Your task to perform on an android device: What is the news today? Image 0: 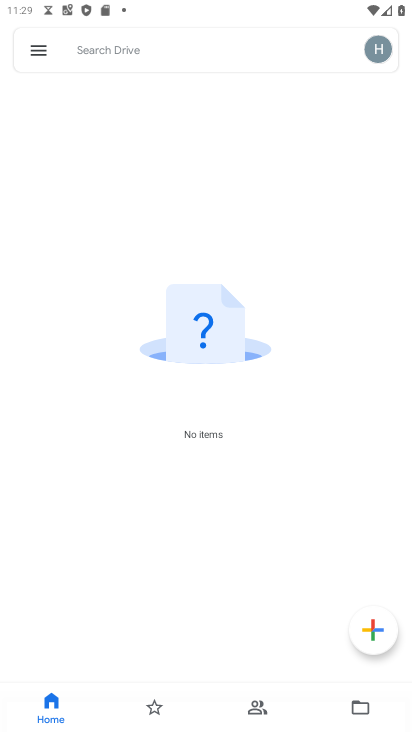
Step 0: press home button
Your task to perform on an android device: What is the news today? Image 1: 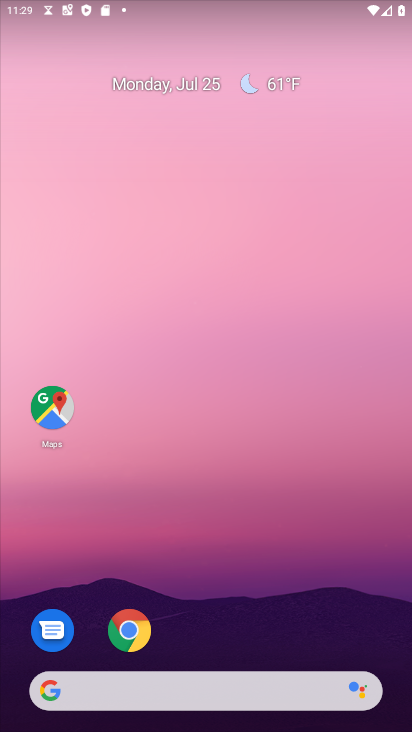
Step 1: click (231, 677)
Your task to perform on an android device: What is the news today? Image 2: 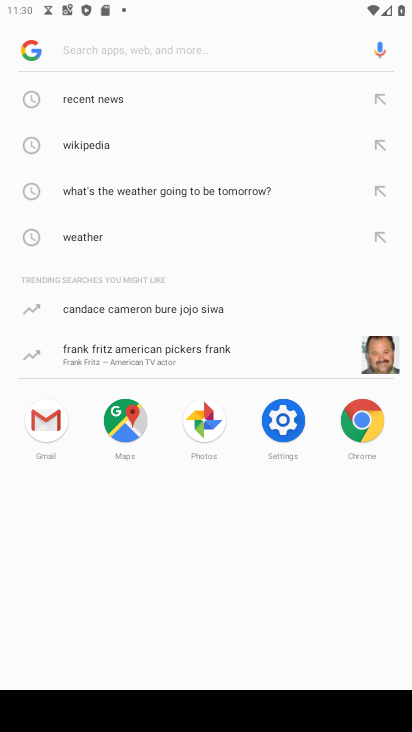
Step 2: type "what is the news today"
Your task to perform on an android device: What is the news today? Image 3: 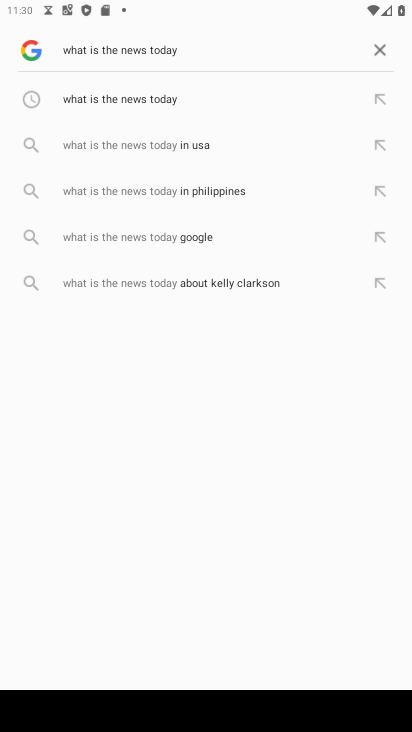
Step 3: click (158, 102)
Your task to perform on an android device: What is the news today? Image 4: 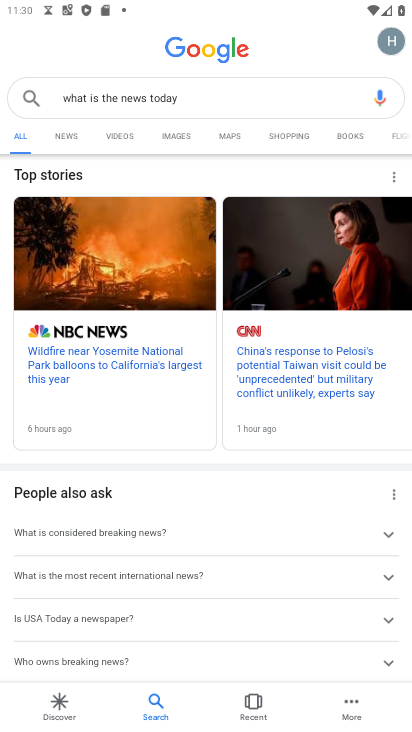
Step 4: click (60, 143)
Your task to perform on an android device: What is the news today? Image 5: 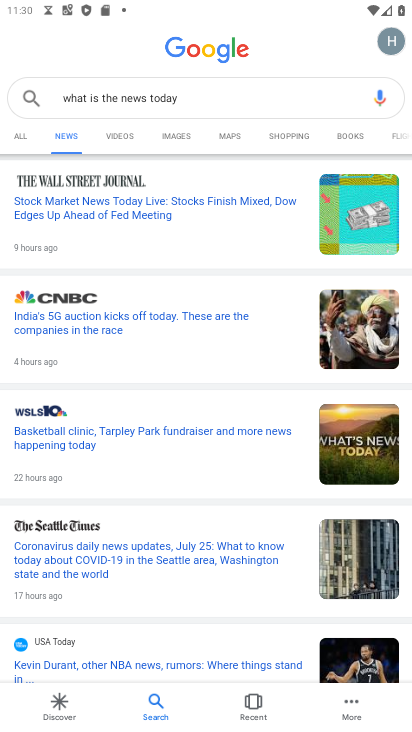
Step 5: task complete